Your task to perform on an android device: turn on airplane mode Image 0: 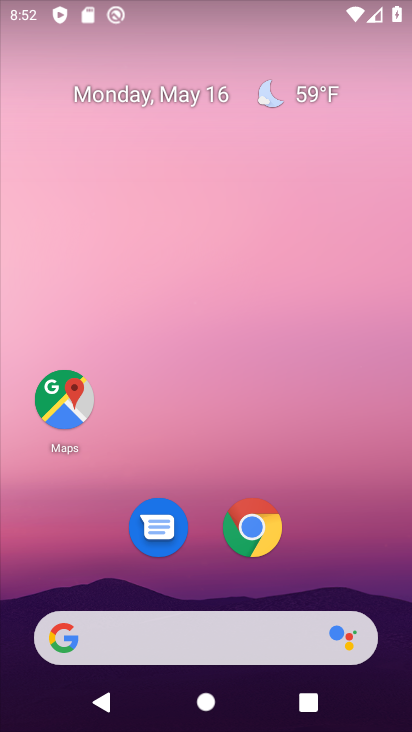
Step 0: drag from (374, 578) to (347, 356)
Your task to perform on an android device: turn on airplane mode Image 1: 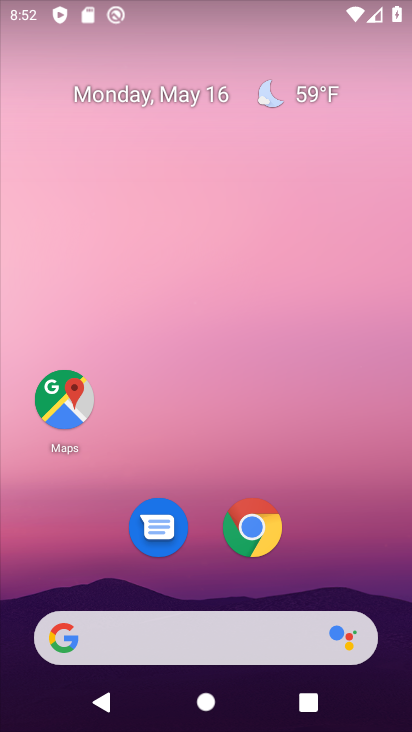
Step 1: drag from (380, 555) to (378, 339)
Your task to perform on an android device: turn on airplane mode Image 2: 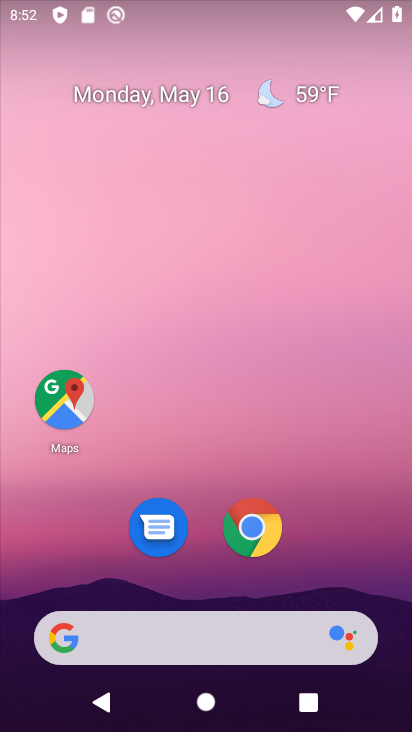
Step 2: drag from (387, 617) to (349, 336)
Your task to perform on an android device: turn on airplane mode Image 3: 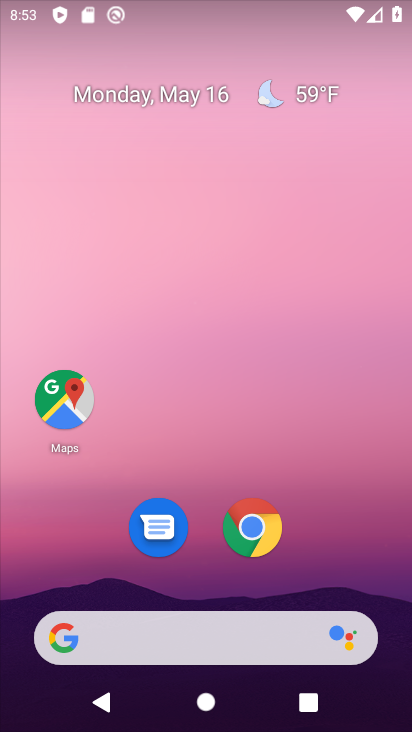
Step 3: drag from (392, 677) to (371, 418)
Your task to perform on an android device: turn on airplane mode Image 4: 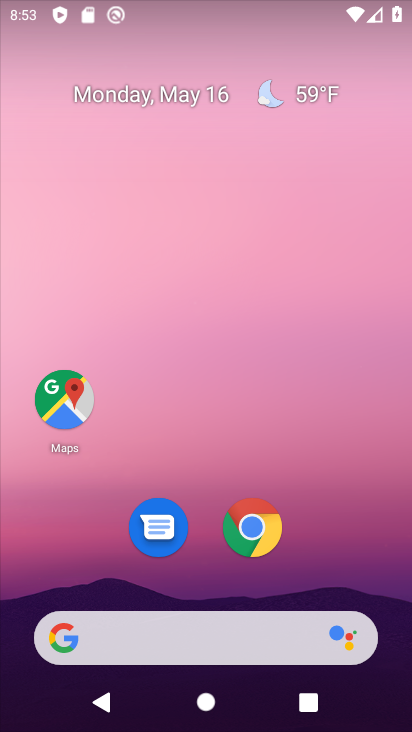
Step 4: drag from (390, 625) to (395, 298)
Your task to perform on an android device: turn on airplane mode Image 5: 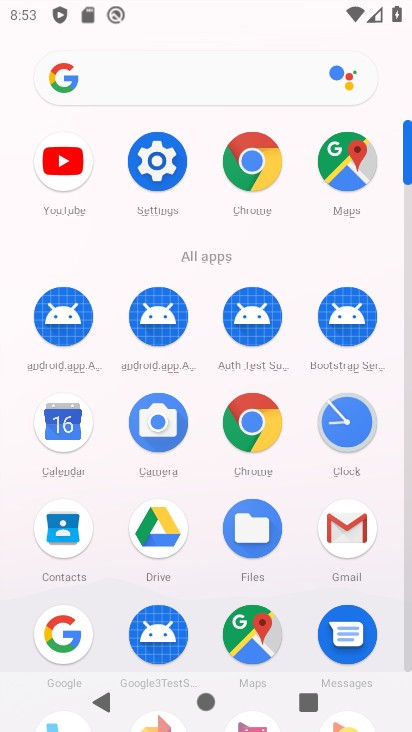
Step 5: click (160, 163)
Your task to perform on an android device: turn on airplane mode Image 6: 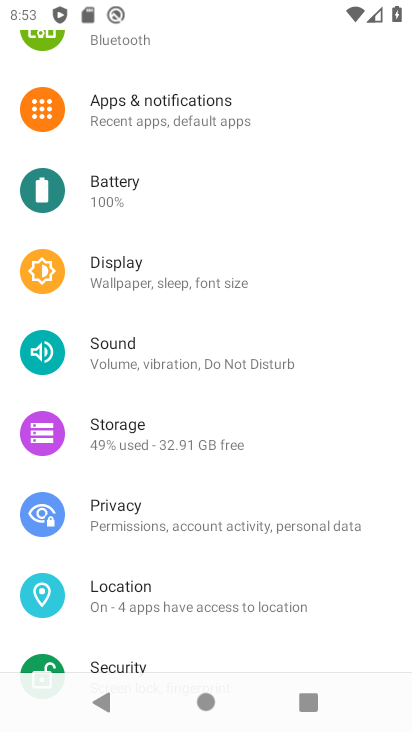
Step 6: drag from (325, 126) to (372, 463)
Your task to perform on an android device: turn on airplane mode Image 7: 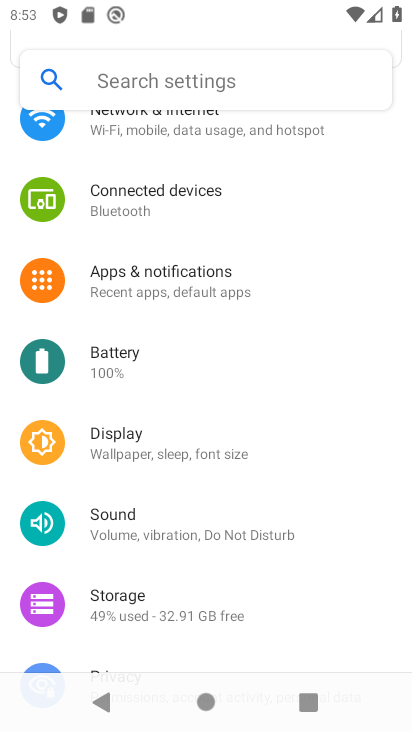
Step 7: drag from (309, 223) to (337, 539)
Your task to perform on an android device: turn on airplane mode Image 8: 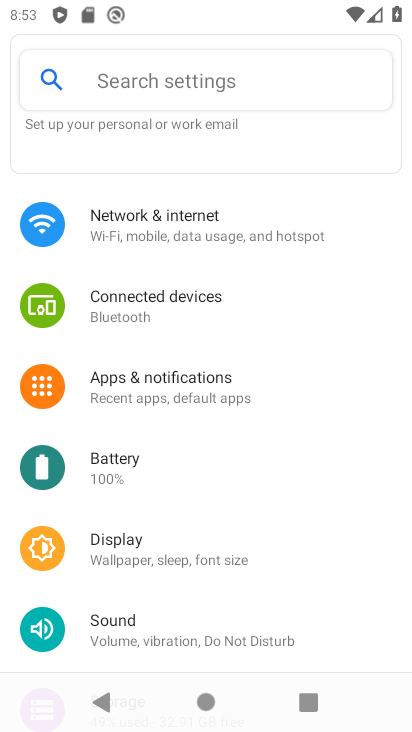
Step 8: click (149, 225)
Your task to perform on an android device: turn on airplane mode Image 9: 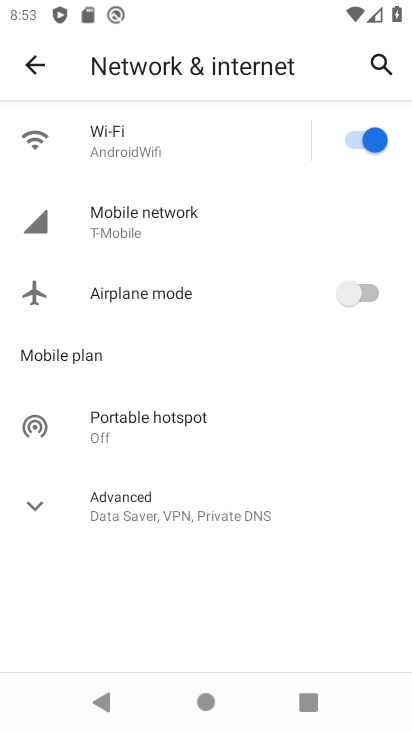
Step 9: click (371, 289)
Your task to perform on an android device: turn on airplane mode Image 10: 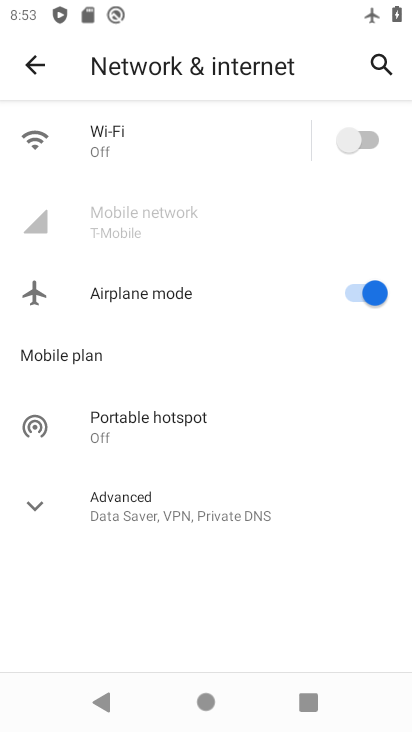
Step 10: task complete